Your task to perform on an android device: check data usage Image 0: 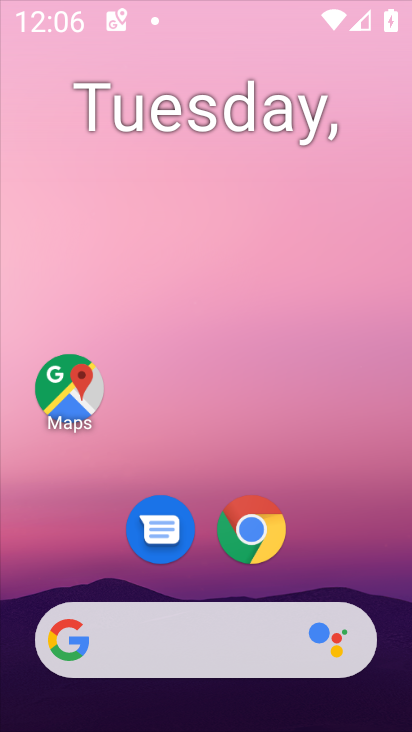
Step 0: click (263, 133)
Your task to perform on an android device: check data usage Image 1: 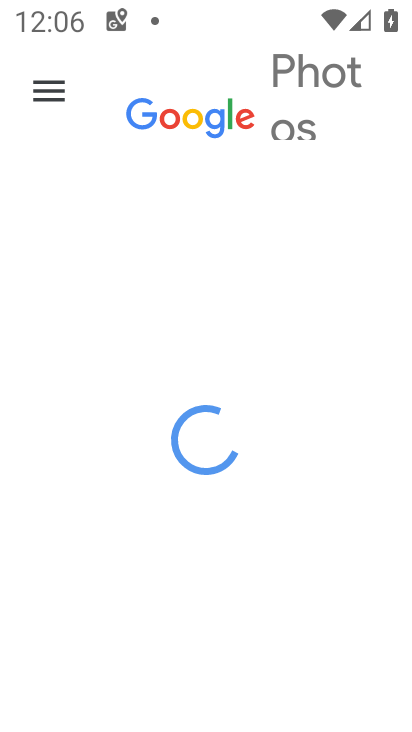
Step 1: press back button
Your task to perform on an android device: check data usage Image 2: 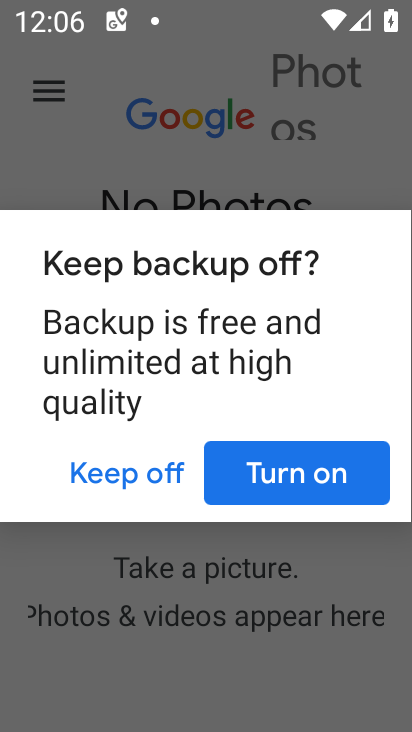
Step 2: press home button
Your task to perform on an android device: check data usage Image 3: 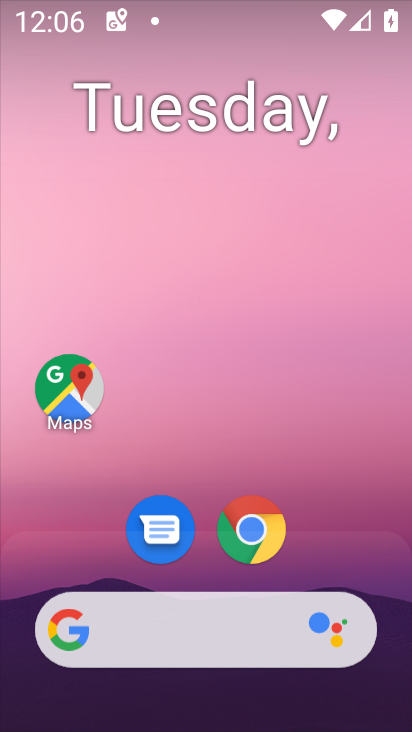
Step 3: drag from (235, 456) to (308, 8)
Your task to perform on an android device: check data usage Image 4: 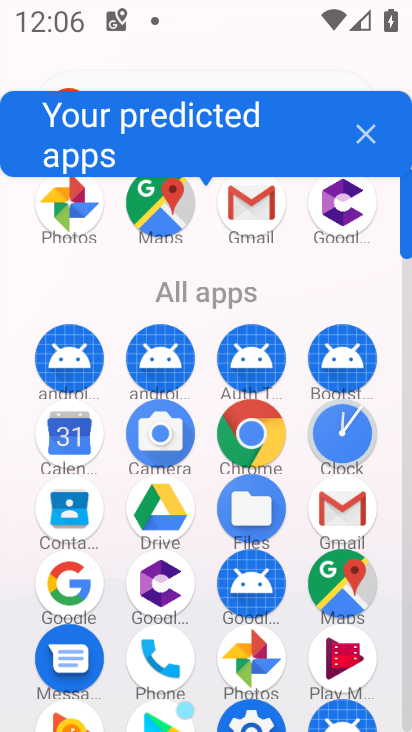
Step 4: click (243, 711)
Your task to perform on an android device: check data usage Image 5: 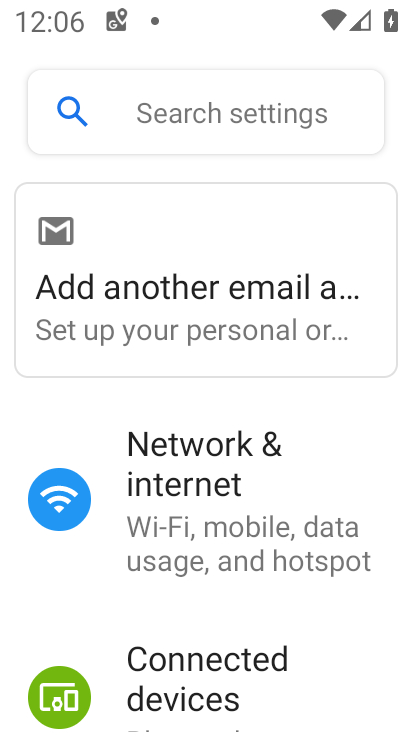
Step 5: drag from (252, 665) to (252, 194)
Your task to perform on an android device: check data usage Image 6: 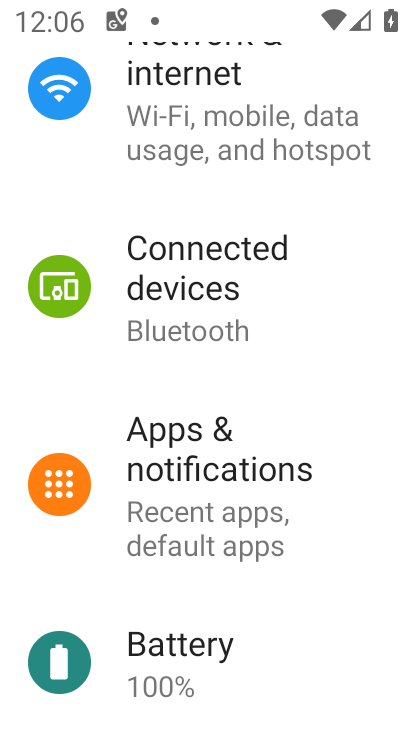
Step 6: drag from (228, 616) to (210, 113)
Your task to perform on an android device: check data usage Image 7: 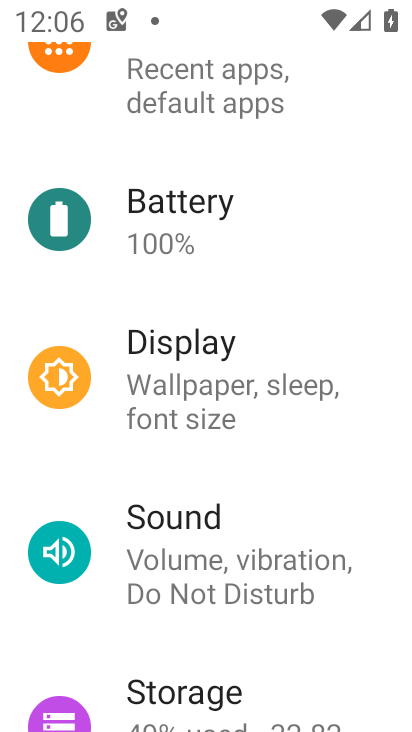
Step 7: click (190, 706)
Your task to perform on an android device: check data usage Image 8: 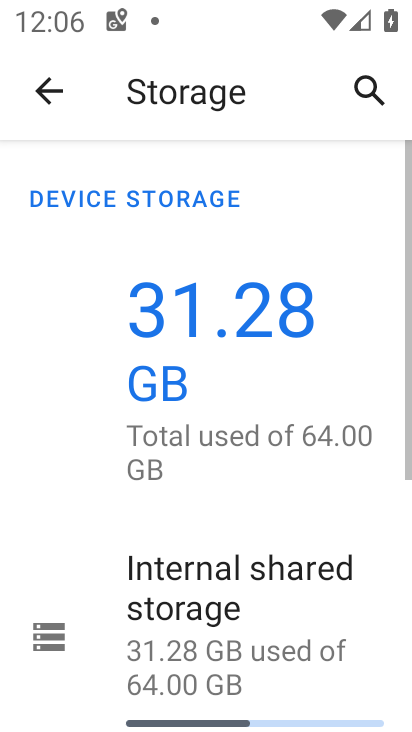
Step 8: task complete